Your task to perform on an android device: show emergency info Image 0: 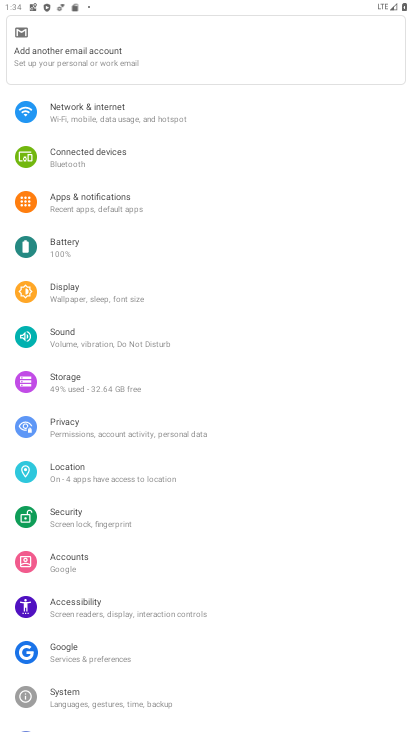
Step 0: drag from (110, 675) to (122, 209)
Your task to perform on an android device: show emergency info Image 1: 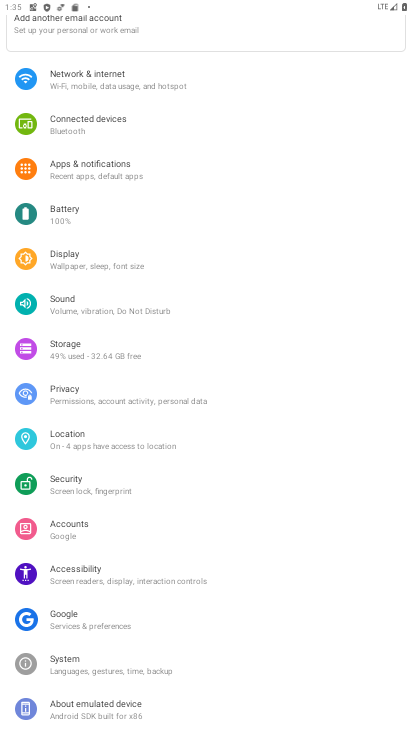
Step 1: click (91, 705)
Your task to perform on an android device: show emergency info Image 2: 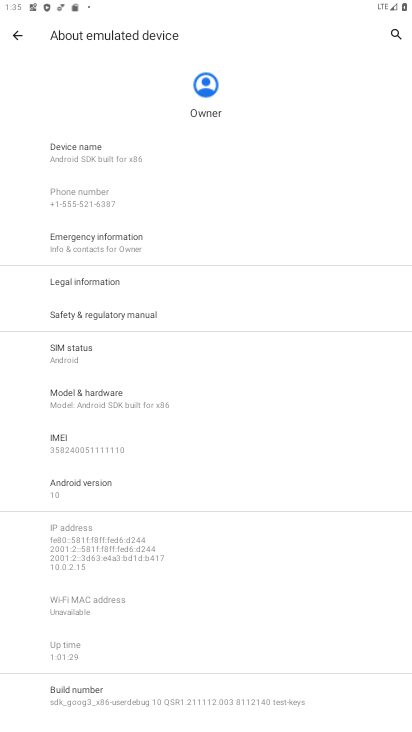
Step 2: task complete